Your task to perform on an android device: turn on showing notifications on the lock screen Image 0: 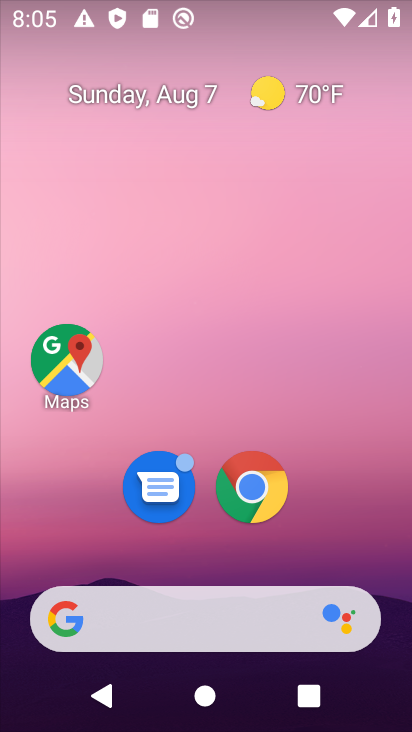
Step 0: drag from (385, 713) to (328, 0)
Your task to perform on an android device: turn on showing notifications on the lock screen Image 1: 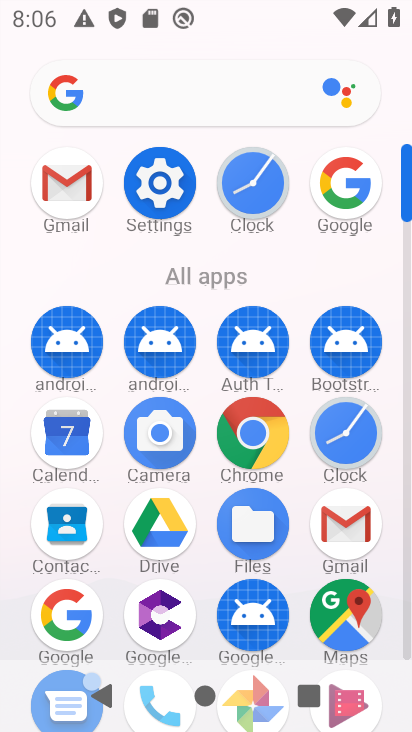
Step 1: click (160, 190)
Your task to perform on an android device: turn on showing notifications on the lock screen Image 2: 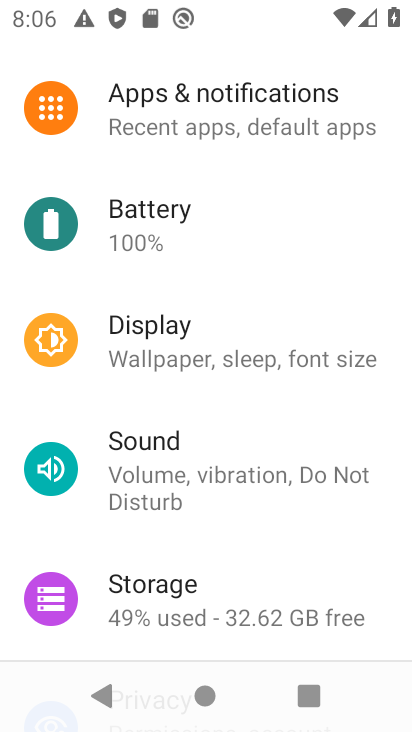
Step 2: drag from (277, 602) to (264, 245)
Your task to perform on an android device: turn on showing notifications on the lock screen Image 3: 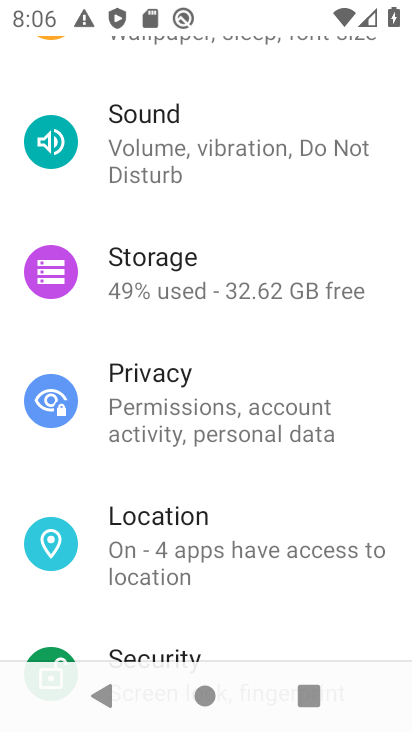
Step 3: drag from (240, 119) to (270, 570)
Your task to perform on an android device: turn on showing notifications on the lock screen Image 4: 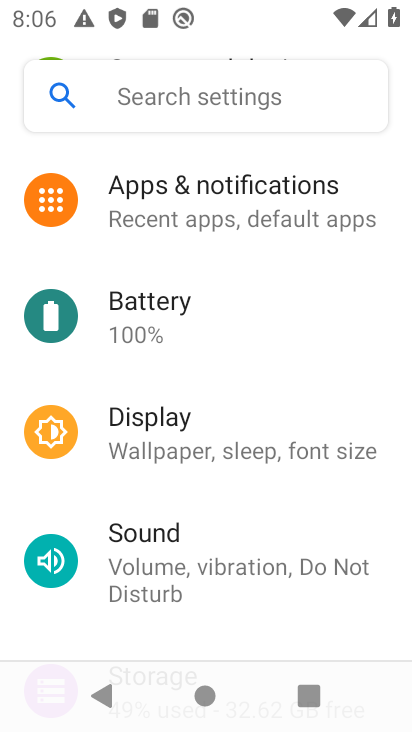
Step 4: click (194, 184)
Your task to perform on an android device: turn on showing notifications on the lock screen Image 5: 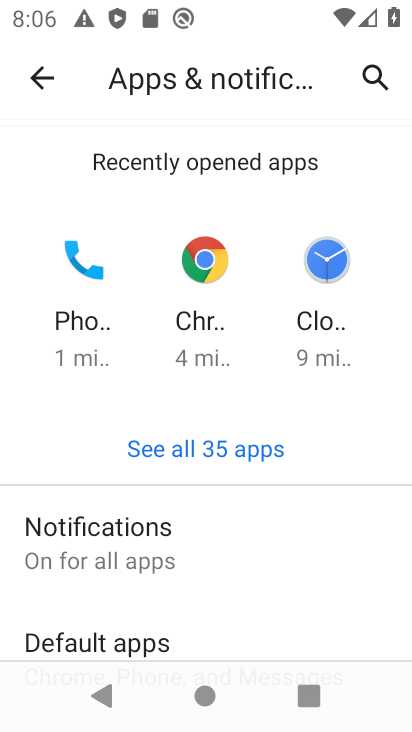
Step 5: click (97, 534)
Your task to perform on an android device: turn on showing notifications on the lock screen Image 6: 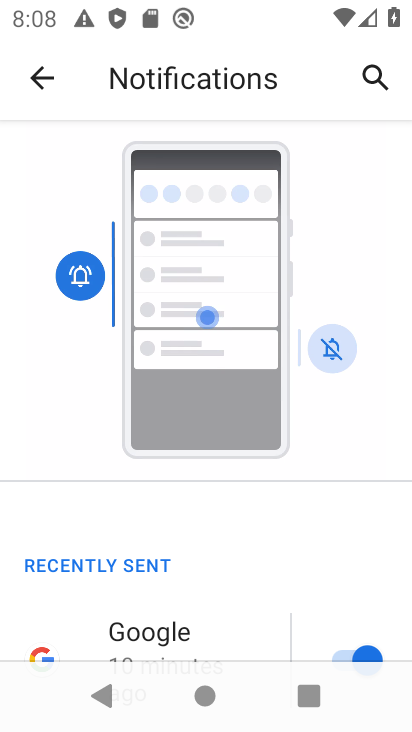
Step 6: drag from (306, 545) to (258, 157)
Your task to perform on an android device: turn on showing notifications on the lock screen Image 7: 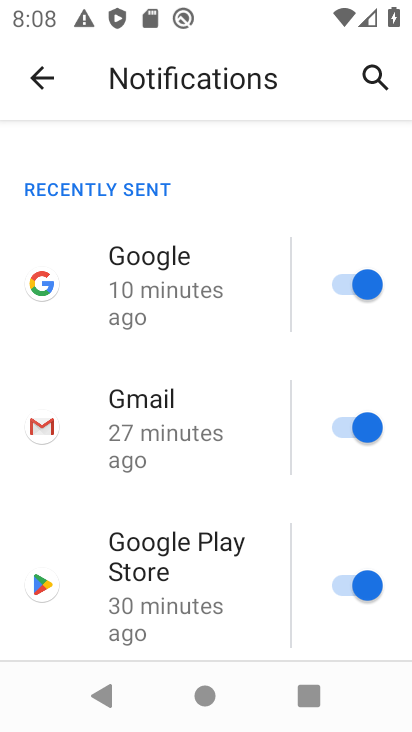
Step 7: drag from (251, 436) to (247, 245)
Your task to perform on an android device: turn on showing notifications on the lock screen Image 8: 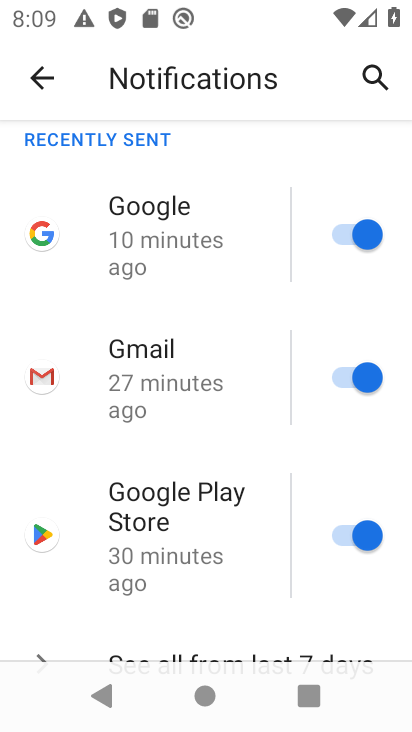
Step 8: drag from (225, 463) to (216, 189)
Your task to perform on an android device: turn on showing notifications on the lock screen Image 9: 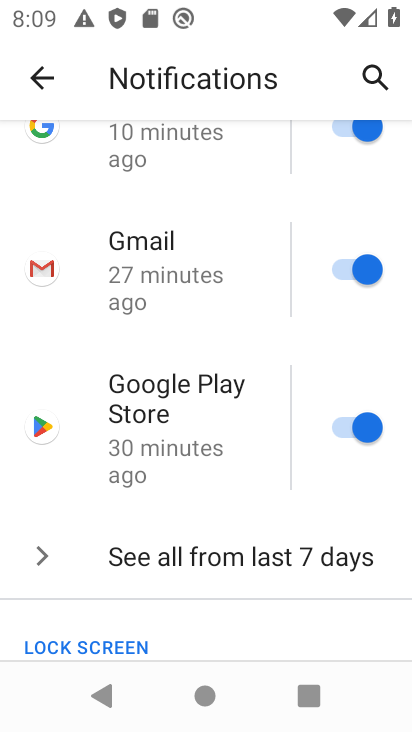
Step 9: click (164, 633)
Your task to perform on an android device: turn on showing notifications on the lock screen Image 10: 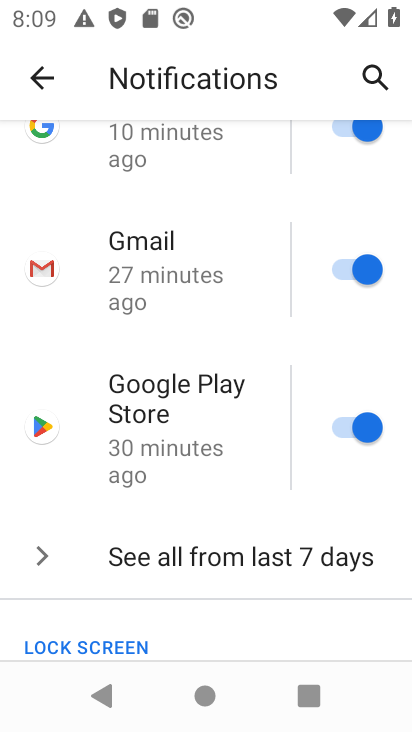
Step 10: click (124, 646)
Your task to perform on an android device: turn on showing notifications on the lock screen Image 11: 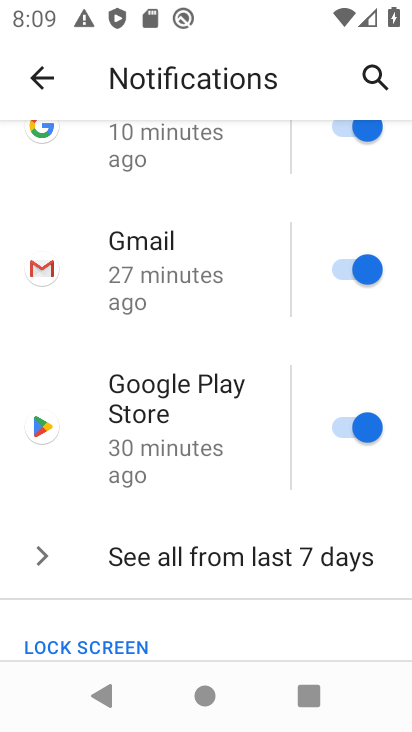
Step 11: drag from (164, 639) to (197, 399)
Your task to perform on an android device: turn on showing notifications on the lock screen Image 12: 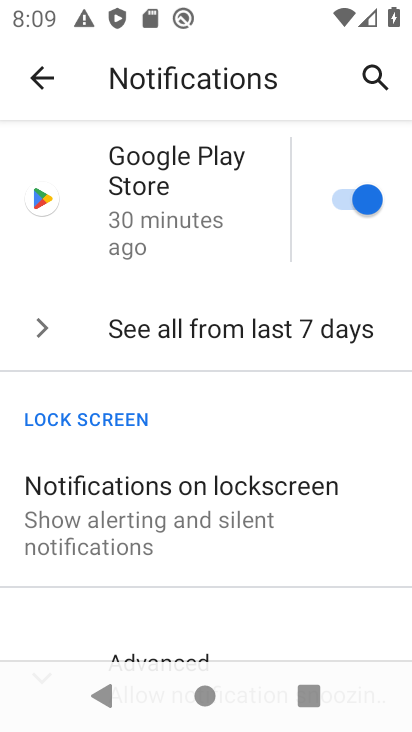
Step 12: click (106, 496)
Your task to perform on an android device: turn on showing notifications on the lock screen Image 13: 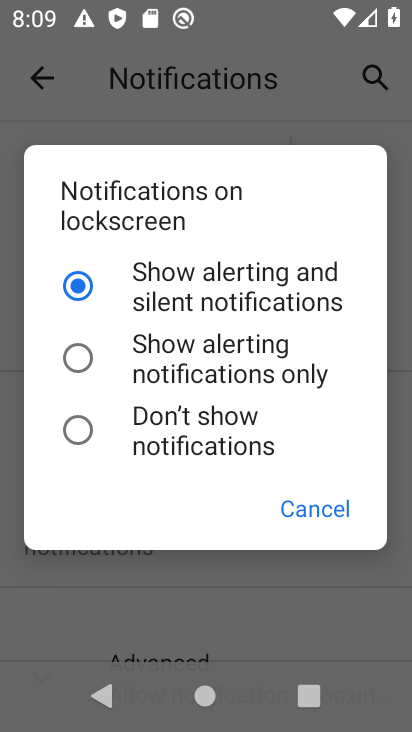
Step 13: task complete